Your task to perform on an android device: What's on my calendar today? Image 0: 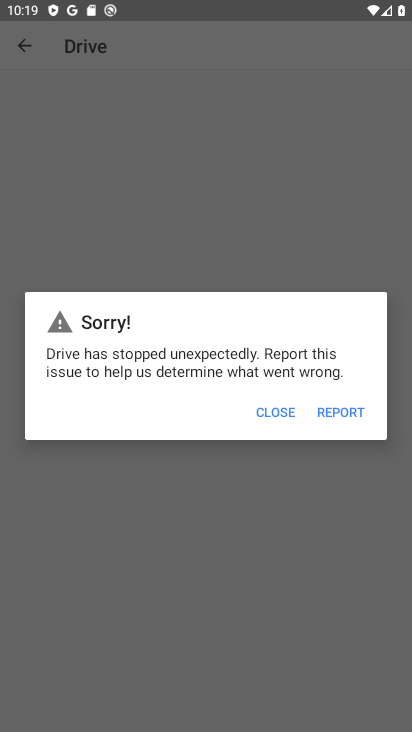
Step 0: press home button
Your task to perform on an android device: What's on my calendar today? Image 1: 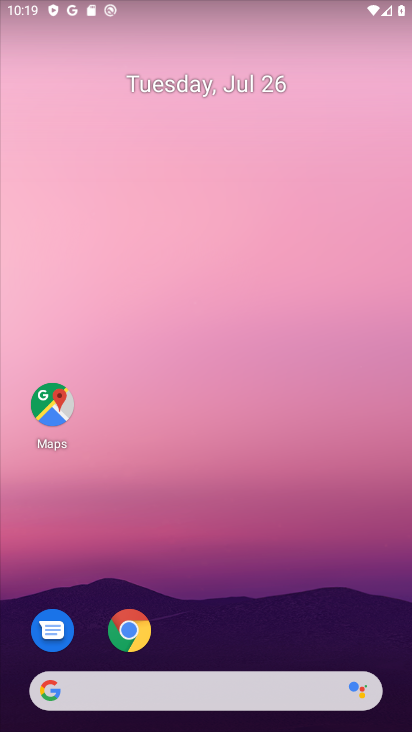
Step 1: drag from (295, 630) to (345, 14)
Your task to perform on an android device: What's on my calendar today? Image 2: 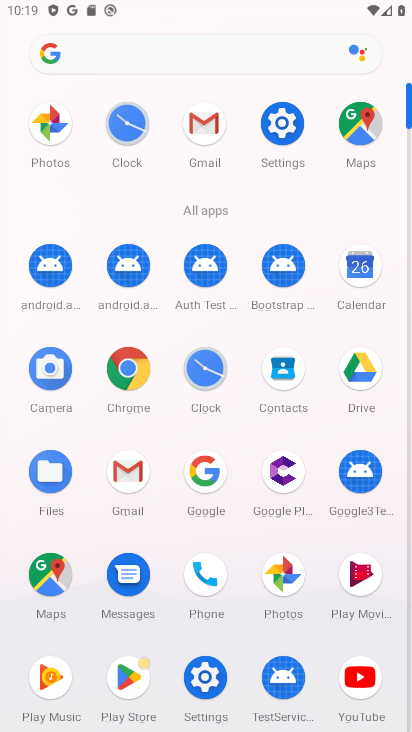
Step 2: click (359, 299)
Your task to perform on an android device: What's on my calendar today? Image 3: 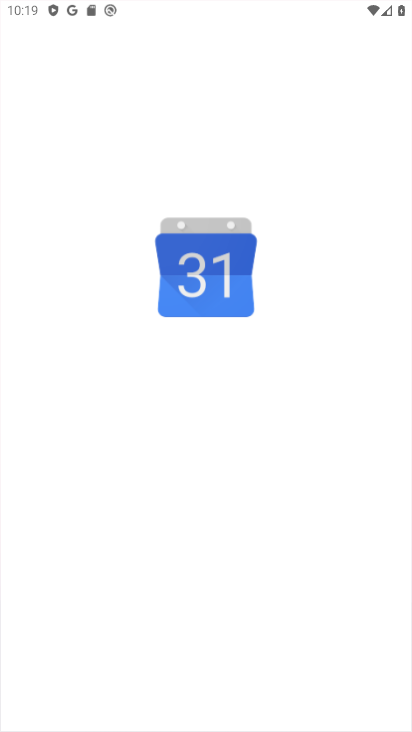
Step 3: click (359, 284)
Your task to perform on an android device: What's on my calendar today? Image 4: 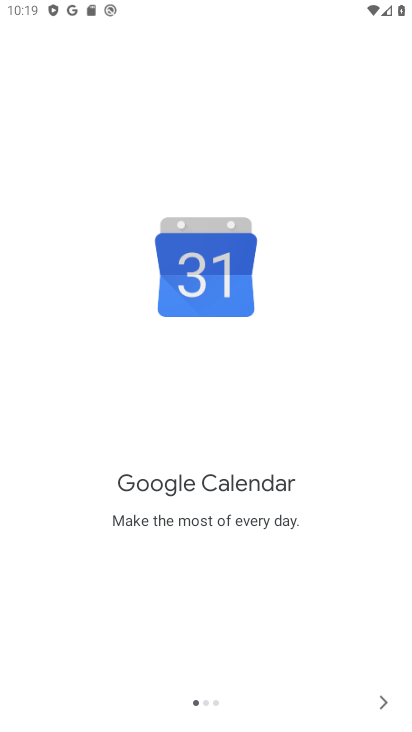
Step 4: click (383, 698)
Your task to perform on an android device: What's on my calendar today? Image 5: 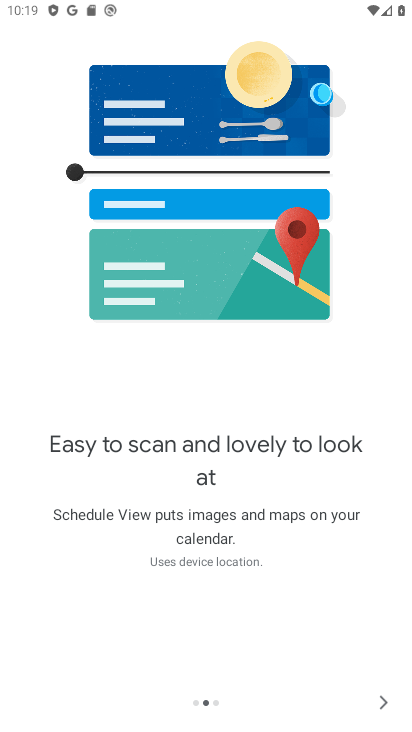
Step 5: click (383, 698)
Your task to perform on an android device: What's on my calendar today? Image 6: 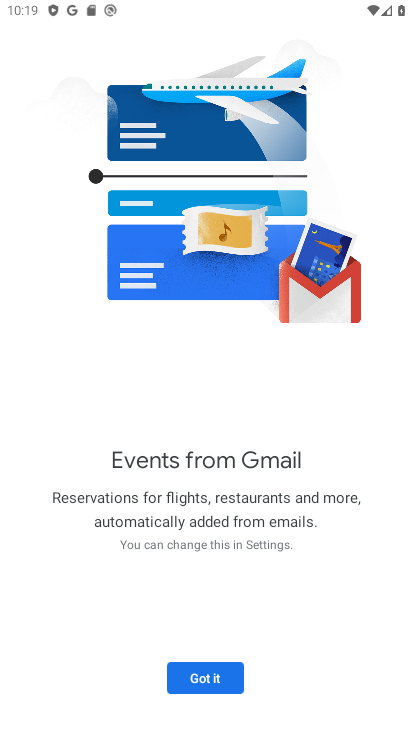
Step 6: click (215, 681)
Your task to perform on an android device: What's on my calendar today? Image 7: 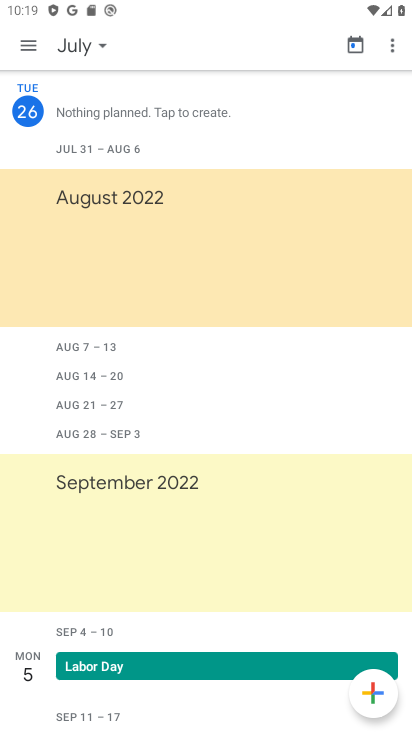
Step 7: task complete